Your task to perform on an android device: visit the assistant section in the google photos Image 0: 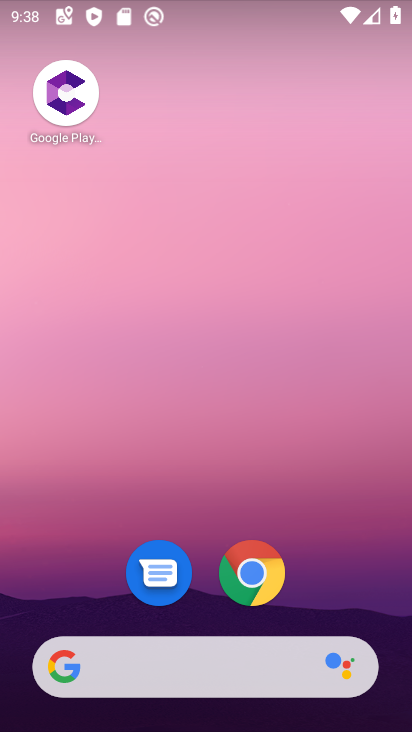
Step 0: click (323, 609)
Your task to perform on an android device: visit the assistant section in the google photos Image 1: 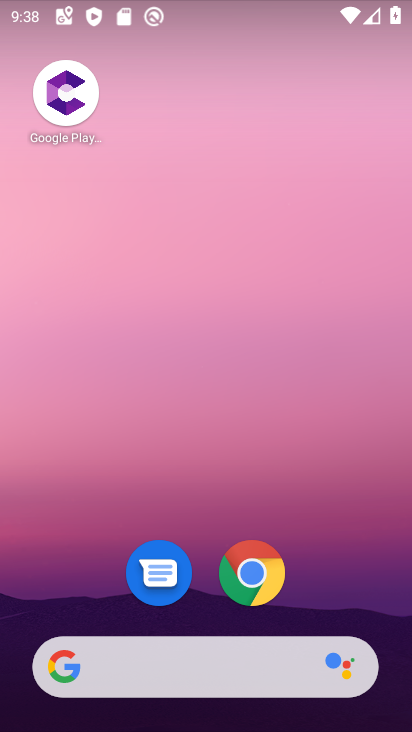
Step 1: drag from (334, 580) to (340, 211)
Your task to perform on an android device: visit the assistant section in the google photos Image 2: 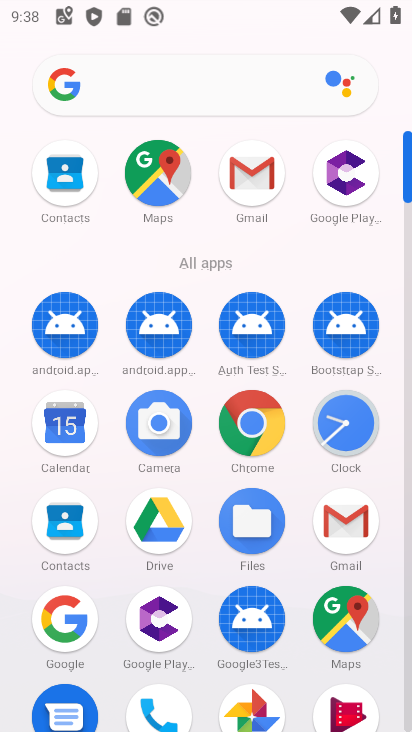
Step 2: click (252, 709)
Your task to perform on an android device: visit the assistant section in the google photos Image 3: 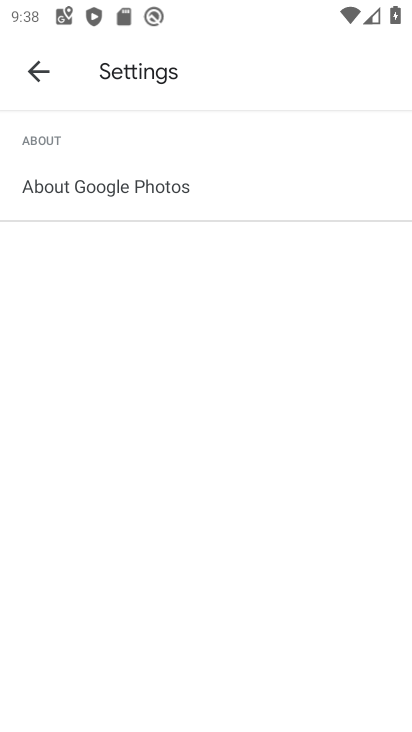
Step 3: click (30, 71)
Your task to perform on an android device: visit the assistant section in the google photos Image 4: 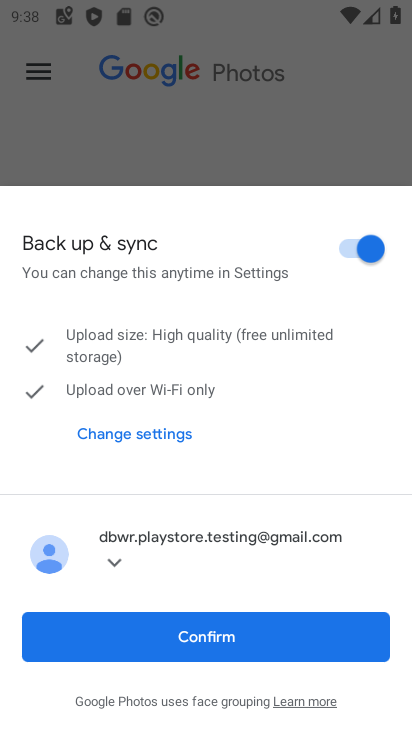
Step 4: click (283, 620)
Your task to perform on an android device: visit the assistant section in the google photos Image 5: 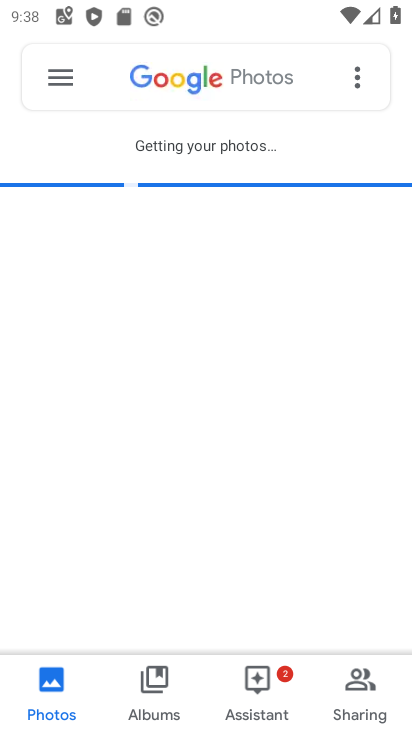
Step 5: click (256, 688)
Your task to perform on an android device: visit the assistant section in the google photos Image 6: 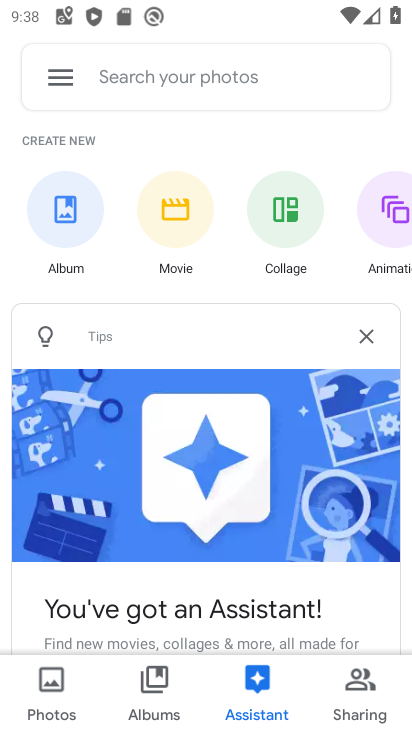
Step 6: task complete